Your task to perform on an android device: Go to Yahoo.com Image 0: 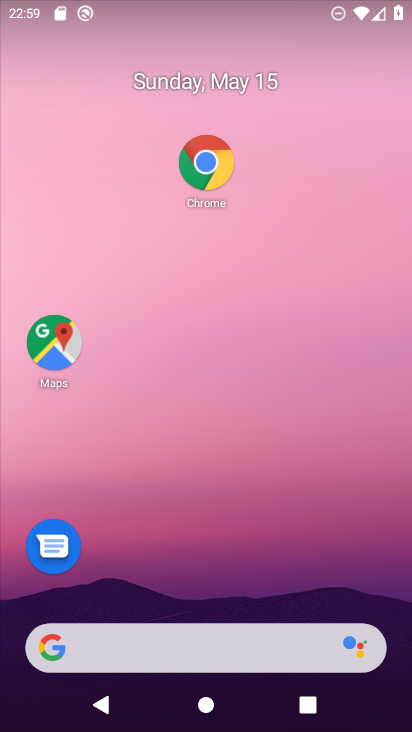
Step 0: click (187, 168)
Your task to perform on an android device: Go to Yahoo.com Image 1: 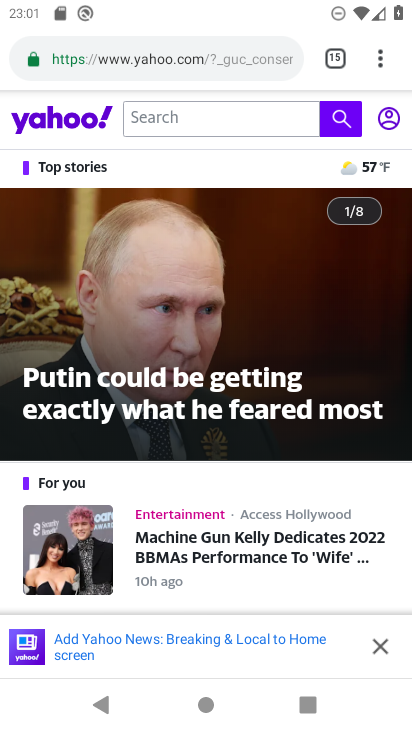
Step 1: task complete